Your task to perform on an android device: turn off notifications settings in the gmail app Image 0: 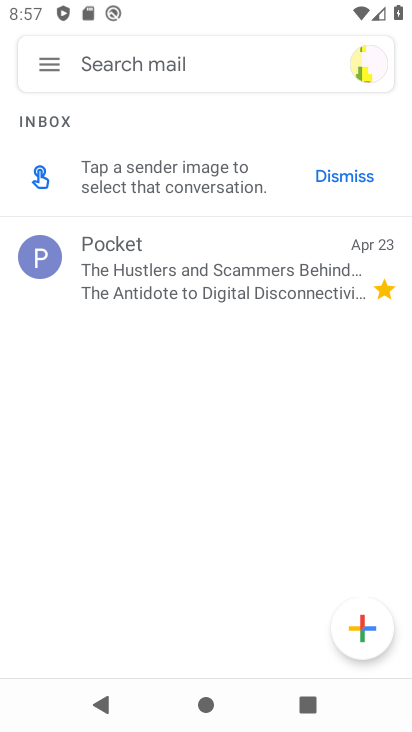
Step 0: press home button
Your task to perform on an android device: turn off notifications settings in the gmail app Image 1: 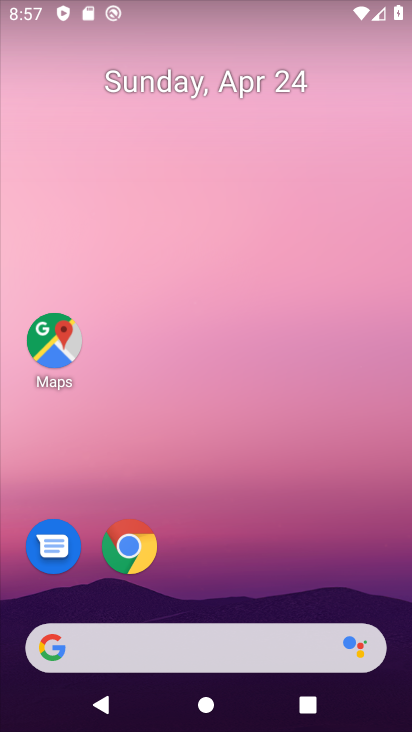
Step 1: drag from (275, 539) to (309, 315)
Your task to perform on an android device: turn off notifications settings in the gmail app Image 2: 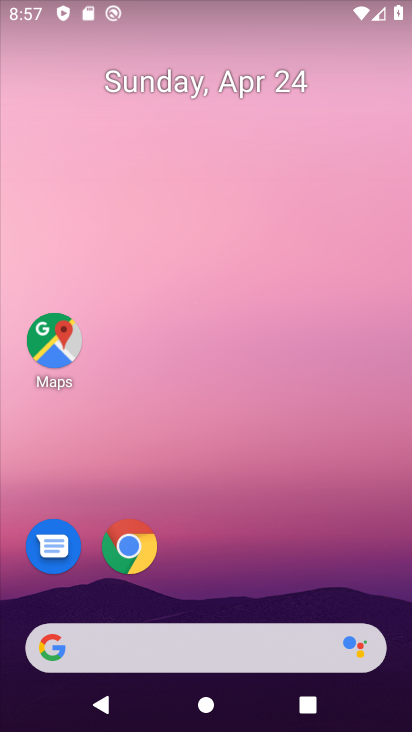
Step 2: drag from (223, 502) to (253, 281)
Your task to perform on an android device: turn off notifications settings in the gmail app Image 3: 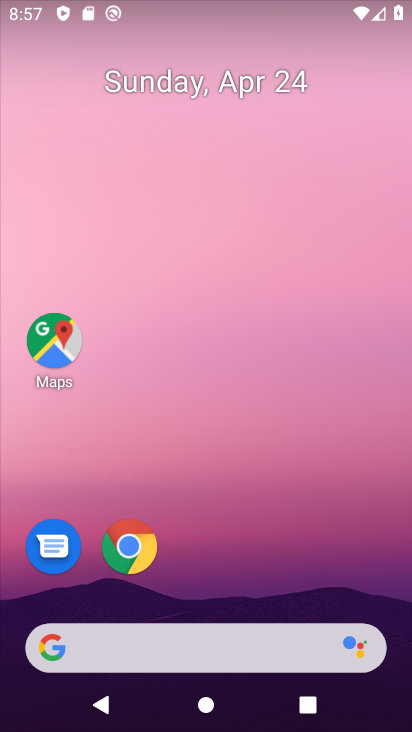
Step 3: drag from (243, 588) to (282, 251)
Your task to perform on an android device: turn off notifications settings in the gmail app Image 4: 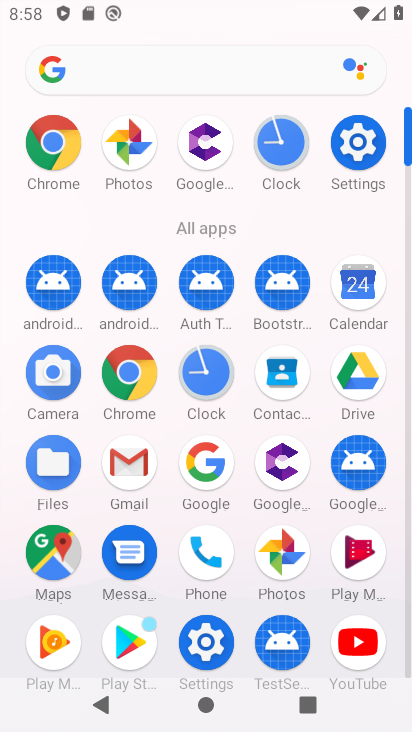
Step 4: click (132, 468)
Your task to perform on an android device: turn off notifications settings in the gmail app Image 5: 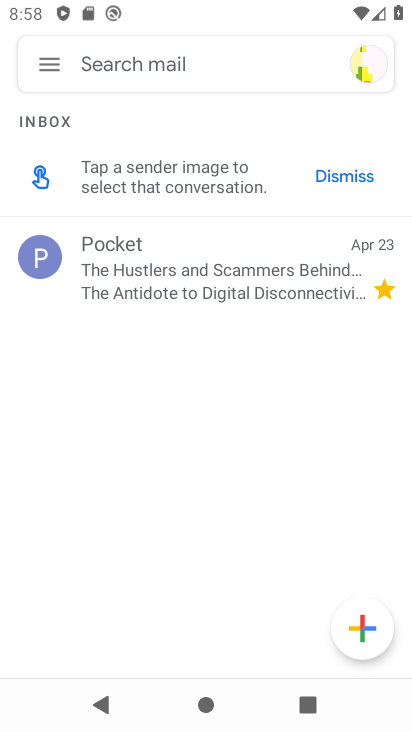
Step 5: click (50, 60)
Your task to perform on an android device: turn off notifications settings in the gmail app Image 6: 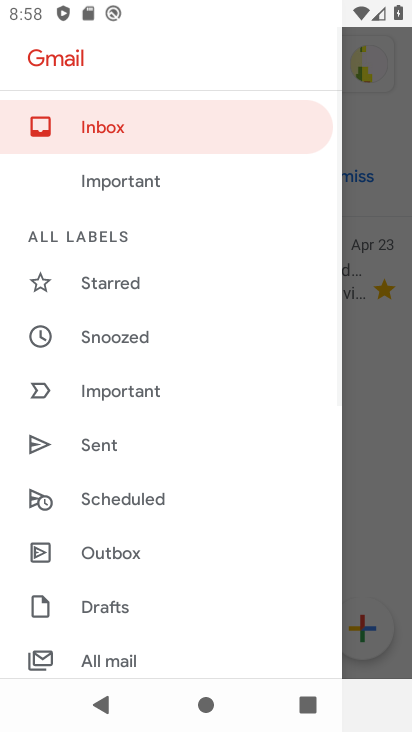
Step 6: drag from (137, 629) to (198, 271)
Your task to perform on an android device: turn off notifications settings in the gmail app Image 7: 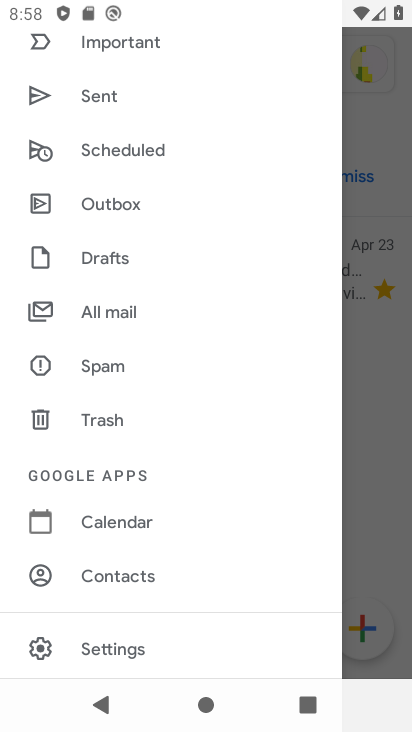
Step 7: click (126, 643)
Your task to perform on an android device: turn off notifications settings in the gmail app Image 8: 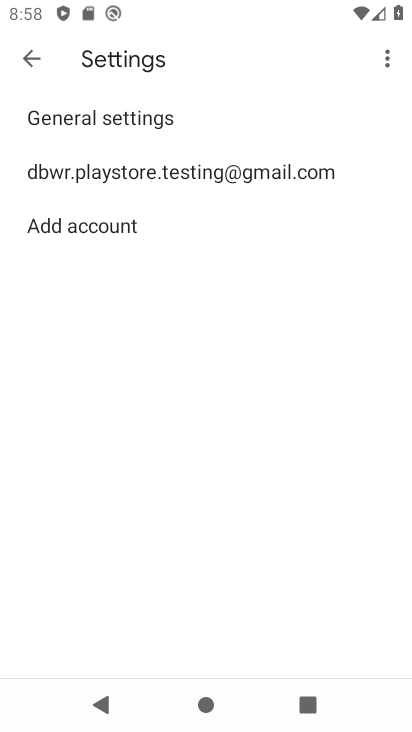
Step 8: click (238, 165)
Your task to perform on an android device: turn off notifications settings in the gmail app Image 9: 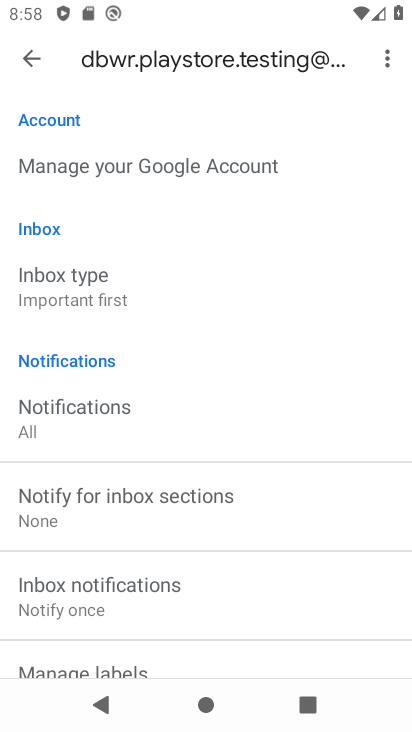
Step 9: drag from (158, 586) to (246, 165)
Your task to perform on an android device: turn off notifications settings in the gmail app Image 10: 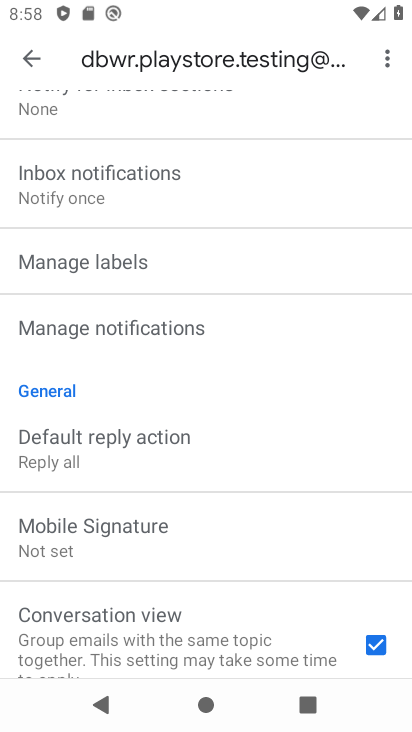
Step 10: drag from (213, 621) to (293, 147)
Your task to perform on an android device: turn off notifications settings in the gmail app Image 11: 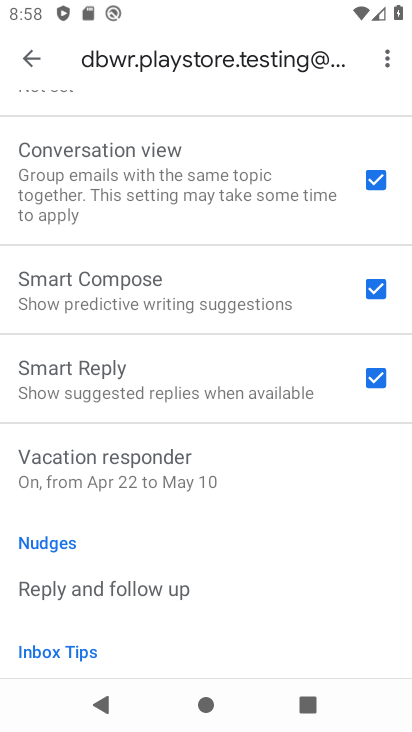
Step 11: drag from (198, 593) to (283, 114)
Your task to perform on an android device: turn off notifications settings in the gmail app Image 12: 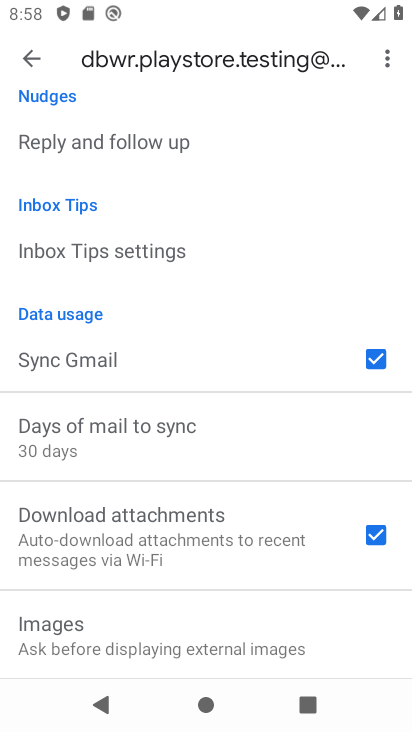
Step 12: drag from (230, 162) to (136, 645)
Your task to perform on an android device: turn off notifications settings in the gmail app Image 13: 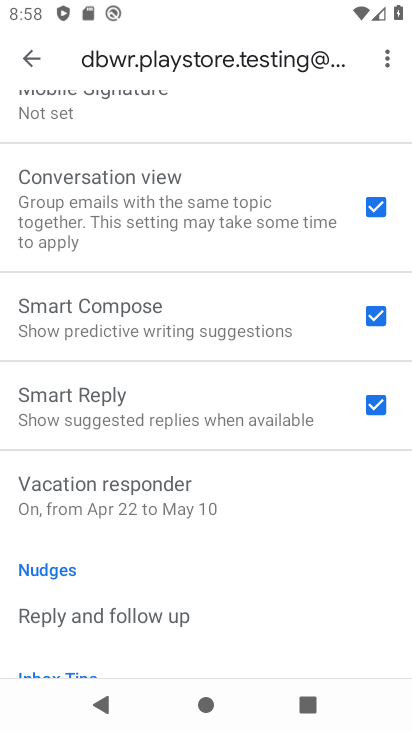
Step 13: drag from (173, 142) to (116, 658)
Your task to perform on an android device: turn off notifications settings in the gmail app Image 14: 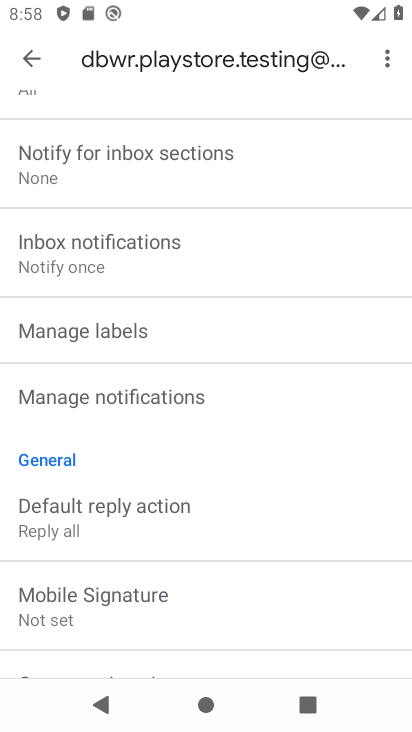
Step 14: drag from (162, 180) to (166, 558)
Your task to perform on an android device: turn off notifications settings in the gmail app Image 15: 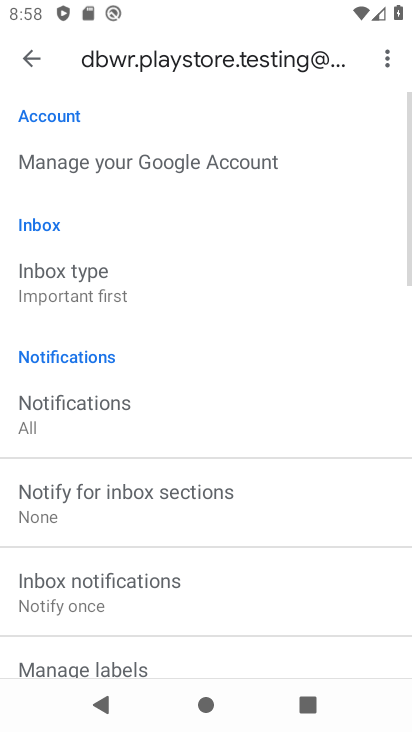
Step 15: click (59, 423)
Your task to perform on an android device: turn off notifications settings in the gmail app Image 16: 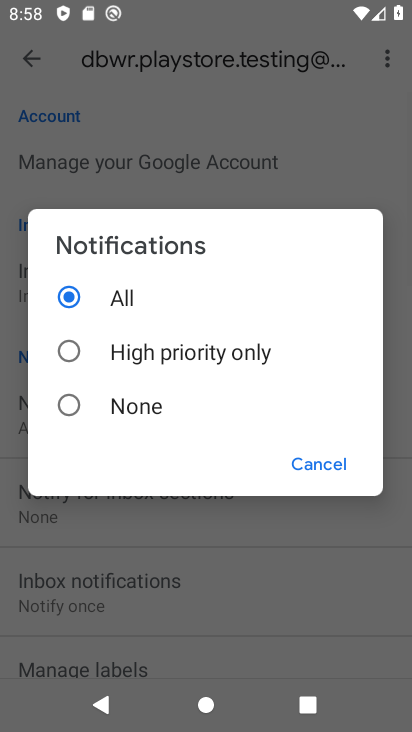
Step 16: click (129, 405)
Your task to perform on an android device: turn off notifications settings in the gmail app Image 17: 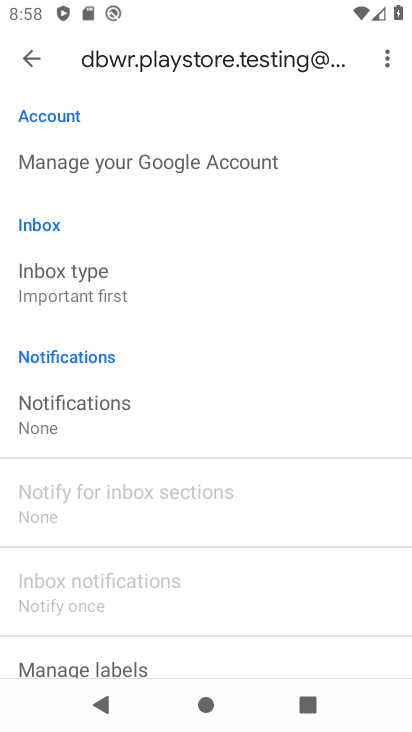
Step 17: task complete